Your task to perform on an android device: set the stopwatch Image 0: 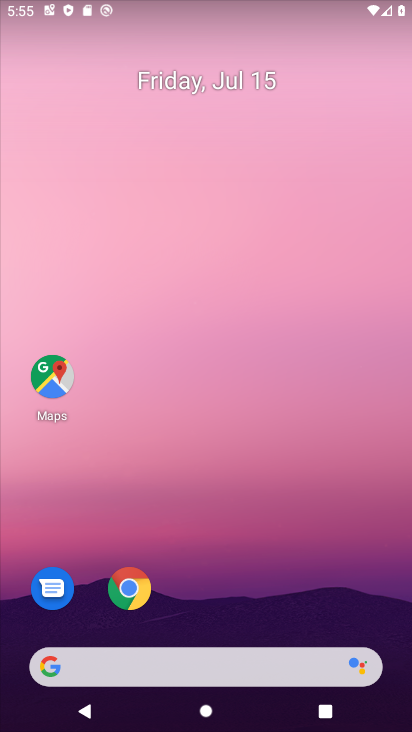
Step 0: drag from (252, 670) to (273, 101)
Your task to perform on an android device: set the stopwatch Image 1: 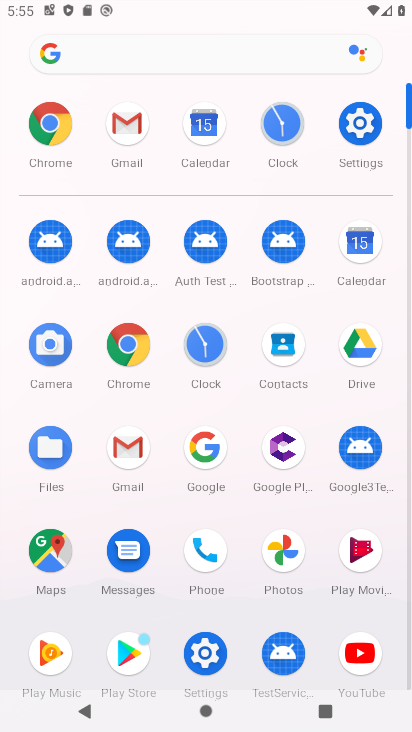
Step 1: click (213, 361)
Your task to perform on an android device: set the stopwatch Image 2: 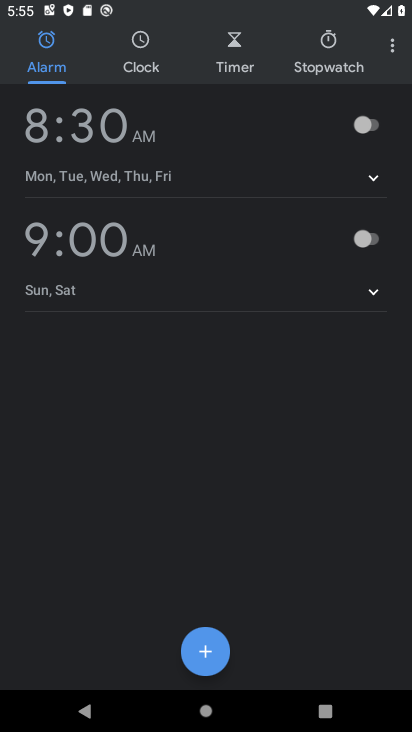
Step 2: click (348, 53)
Your task to perform on an android device: set the stopwatch Image 3: 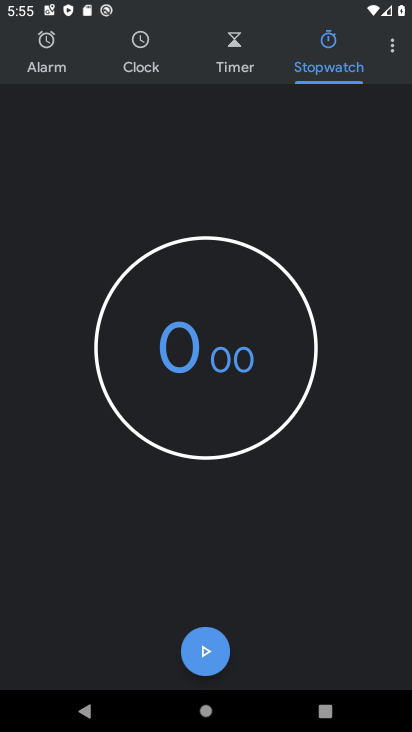
Step 3: click (207, 649)
Your task to perform on an android device: set the stopwatch Image 4: 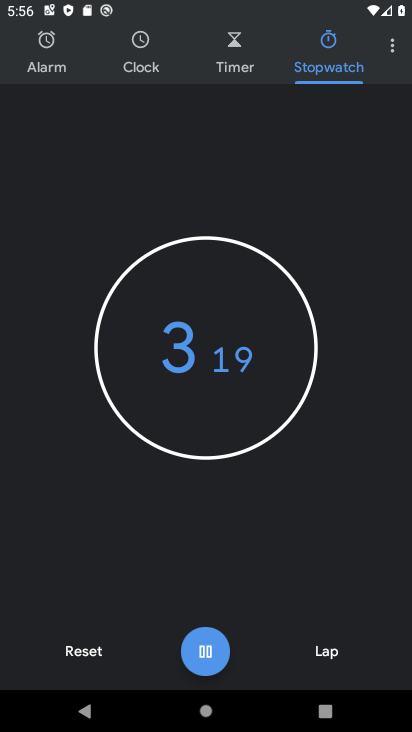
Step 4: task complete